Your task to perform on an android device: refresh tabs in the chrome app Image 0: 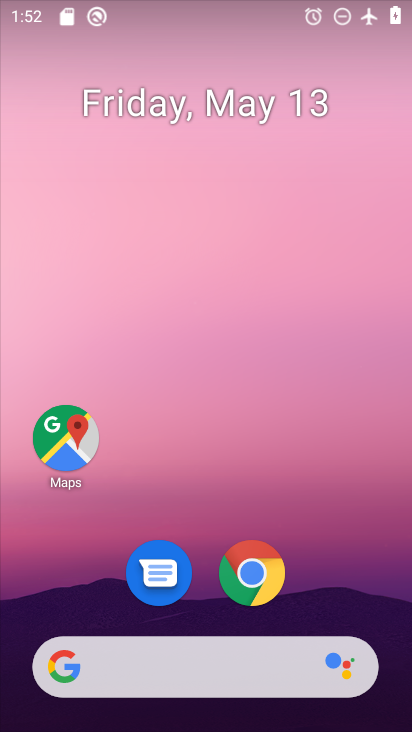
Step 0: click (285, 581)
Your task to perform on an android device: refresh tabs in the chrome app Image 1: 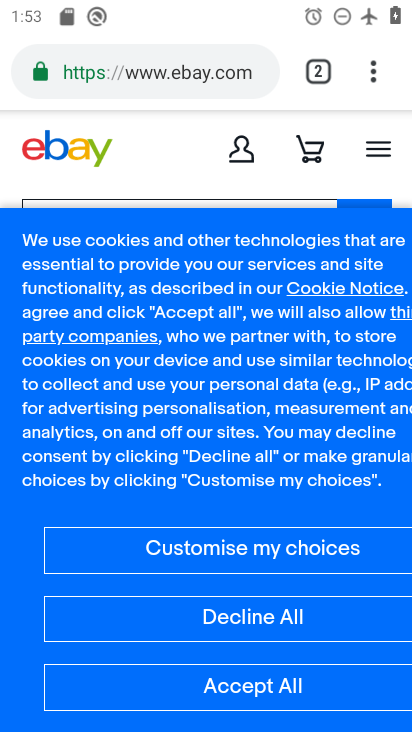
Step 1: click (381, 71)
Your task to perform on an android device: refresh tabs in the chrome app Image 2: 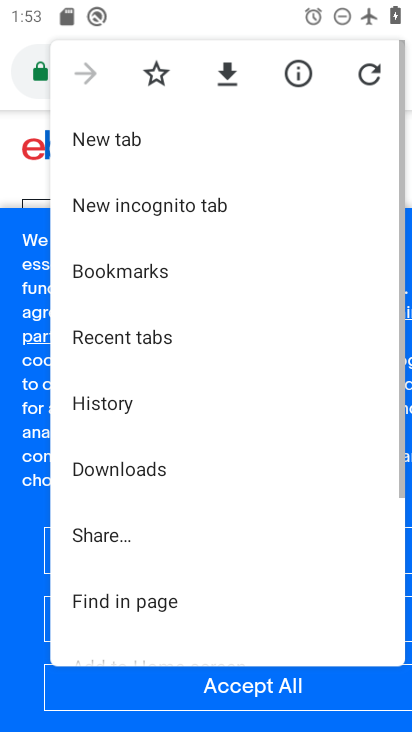
Step 2: click (364, 78)
Your task to perform on an android device: refresh tabs in the chrome app Image 3: 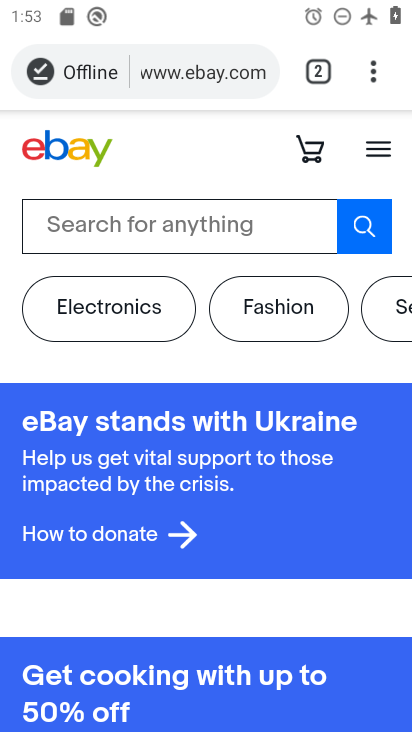
Step 3: task complete